Your task to perform on an android device: turn smart compose on in the gmail app Image 0: 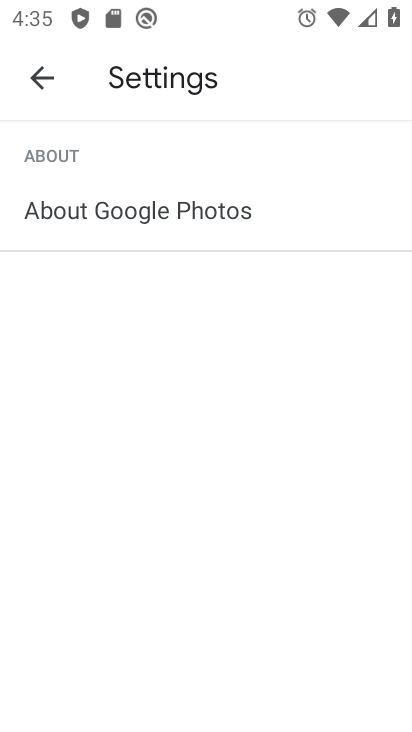
Step 0: press home button
Your task to perform on an android device: turn smart compose on in the gmail app Image 1: 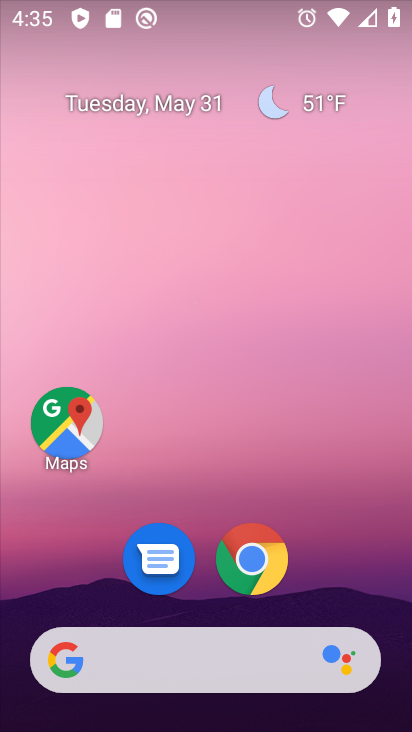
Step 1: drag from (191, 600) to (227, 2)
Your task to perform on an android device: turn smart compose on in the gmail app Image 2: 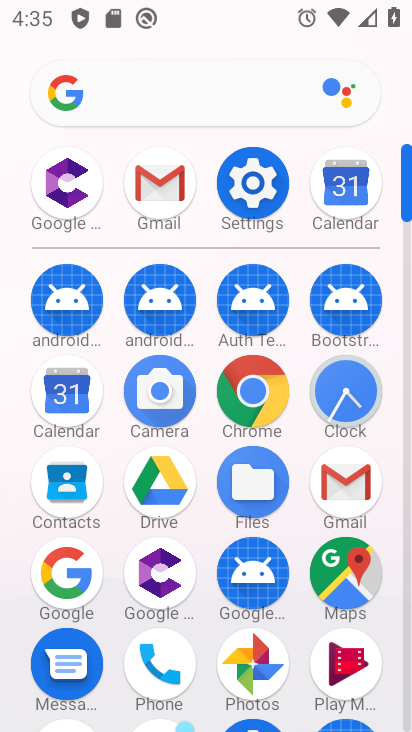
Step 2: click (334, 482)
Your task to perform on an android device: turn smart compose on in the gmail app Image 3: 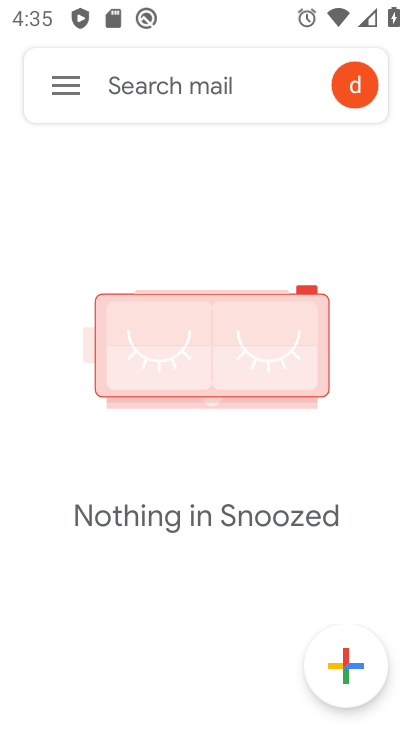
Step 3: click (56, 79)
Your task to perform on an android device: turn smart compose on in the gmail app Image 4: 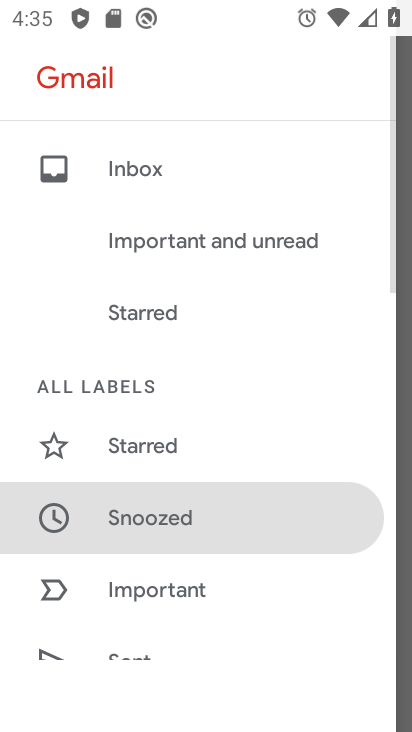
Step 4: drag from (125, 582) to (172, 21)
Your task to perform on an android device: turn smart compose on in the gmail app Image 5: 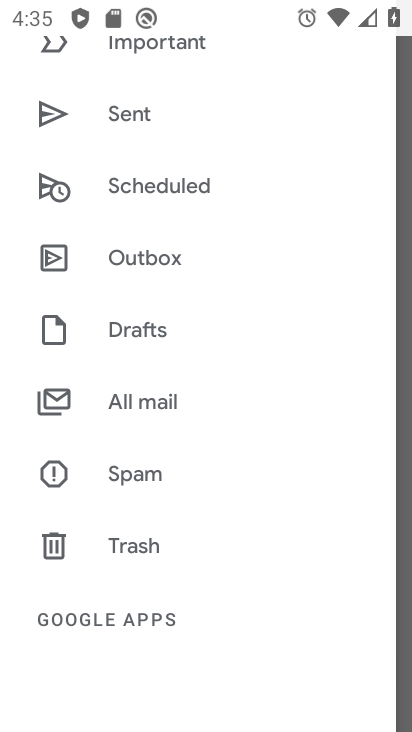
Step 5: drag from (130, 559) to (160, 1)
Your task to perform on an android device: turn smart compose on in the gmail app Image 6: 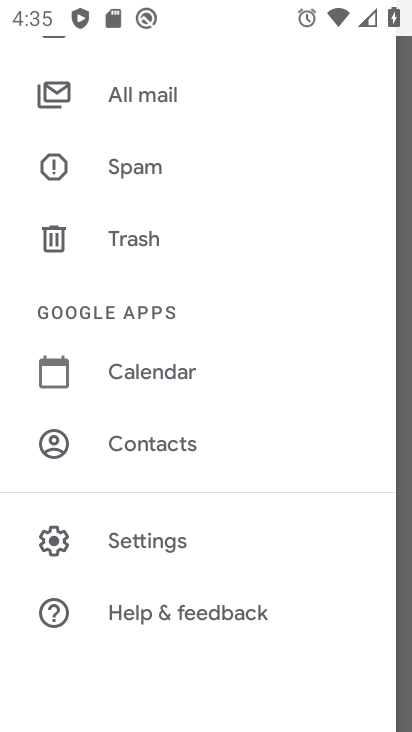
Step 6: click (183, 547)
Your task to perform on an android device: turn smart compose on in the gmail app Image 7: 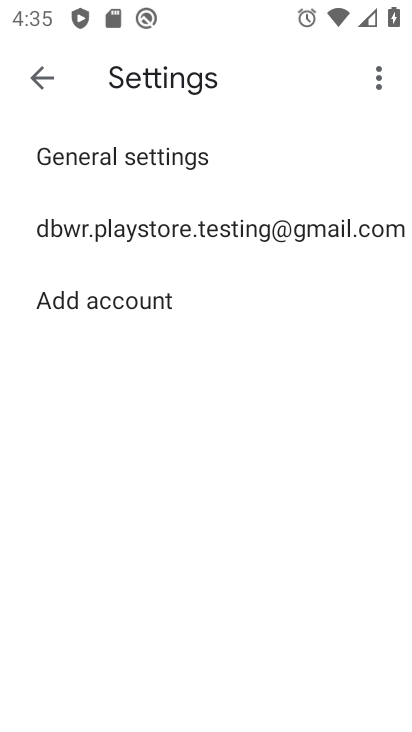
Step 7: drag from (169, 569) to (178, 285)
Your task to perform on an android device: turn smart compose on in the gmail app Image 8: 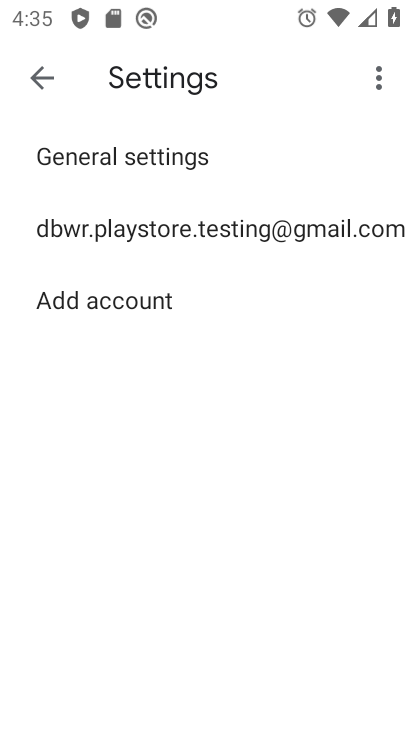
Step 8: click (179, 234)
Your task to perform on an android device: turn smart compose on in the gmail app Image 9: 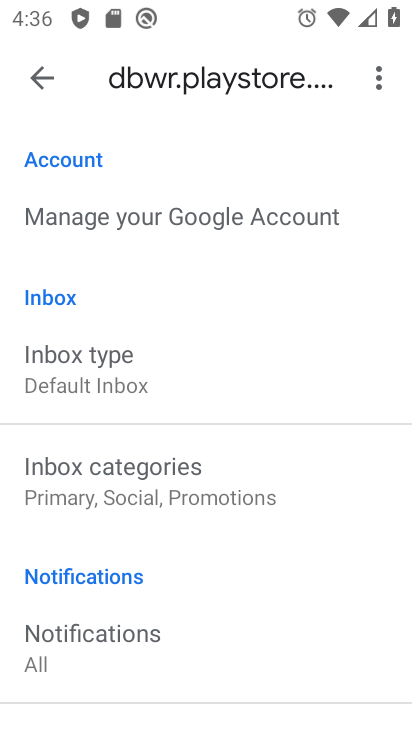
Step 9: task complete